Your task to perform on an android device: turn off priority inbox in the gmail app Image 0: 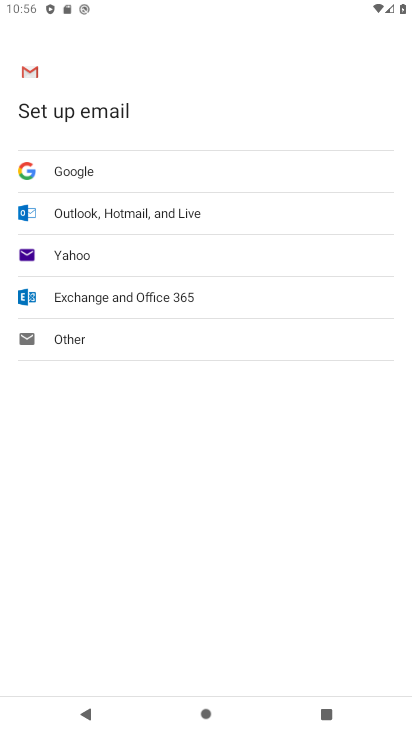
Step 0: press home button
Your task to perform on an android device: turn off priority inbox in the gmail app Image 1: 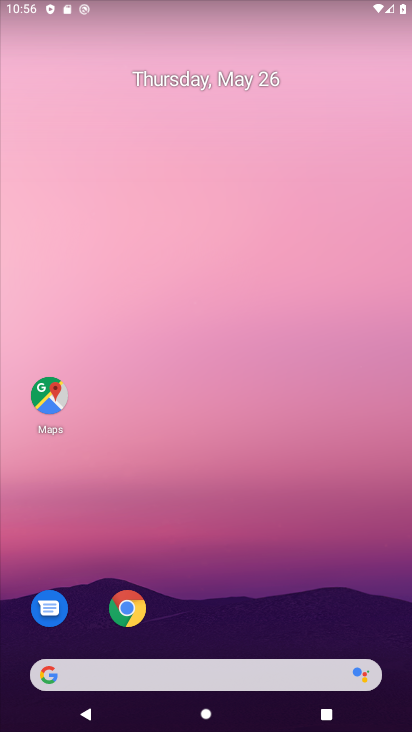
Step 1: drag from (249, 581) to (282, 138)
Your task to perform on an android device: turn off priority inbox in the gmail app Image 2: 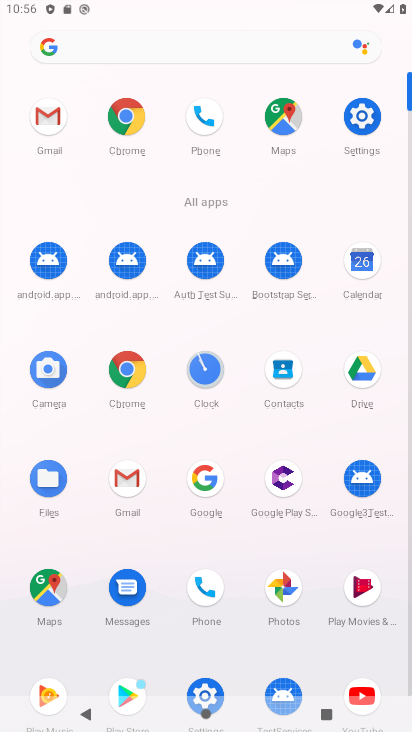
Step 2: click (60, 115)
Your task to perform on an android device: turn off priority inbox in the gmail app Image 3: 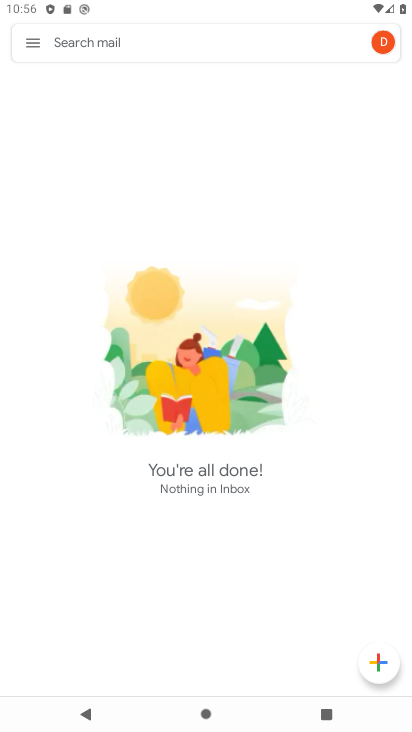
Step 3: click (37, 39)
Your task to perform on an android device: turn off priority inbox in the gmail app Image 4: 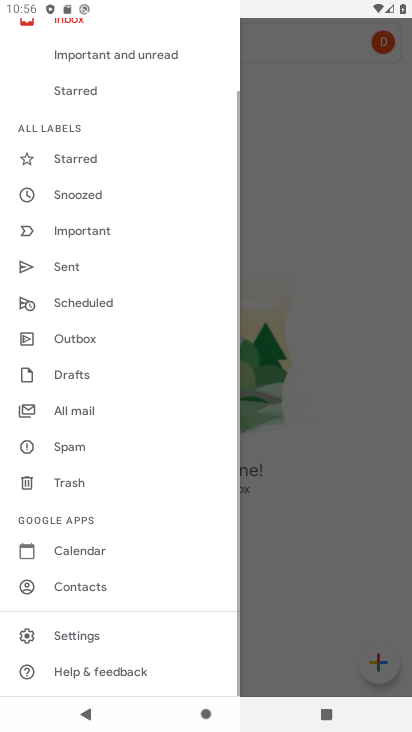
Step 4: drag from (131, 652) to (191, 250)
Your task to perform on an android device: turn off priority inbox in the gmail app Image 5: 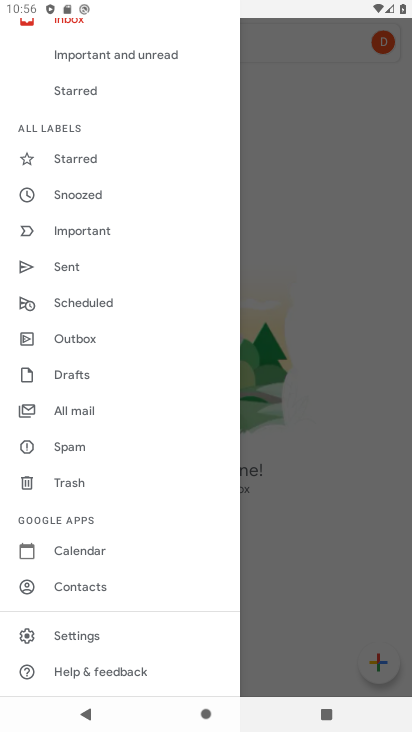
Step 5: click (78, 644)
Your task to perform on an android device: turn off priority inbox in the gmail app Image 6: 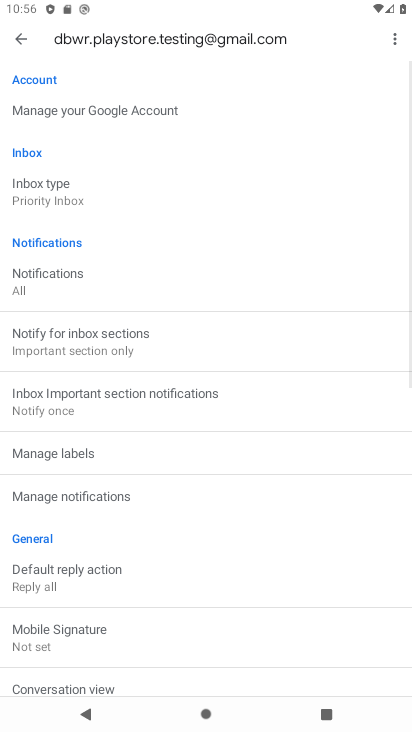
Step 6: drag from (153, 223) to (179, 647)
Your task to perform on an android device: turn off priority inbox in the gmail app Image 7: 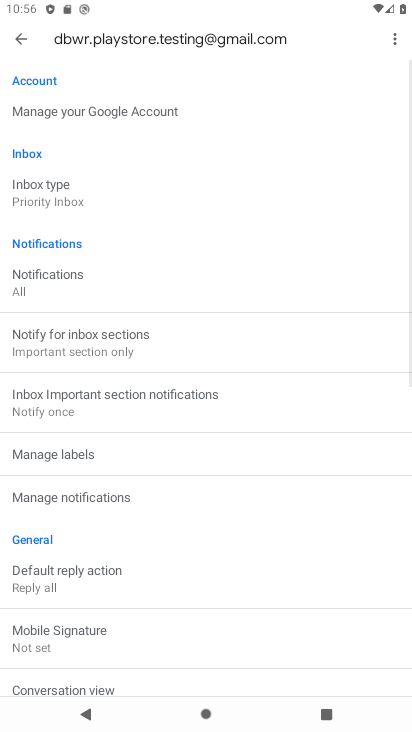
Step 7: click (56, 201)
Your task to perform on an android device: turn off priority inbox in the gmail app Image 8: 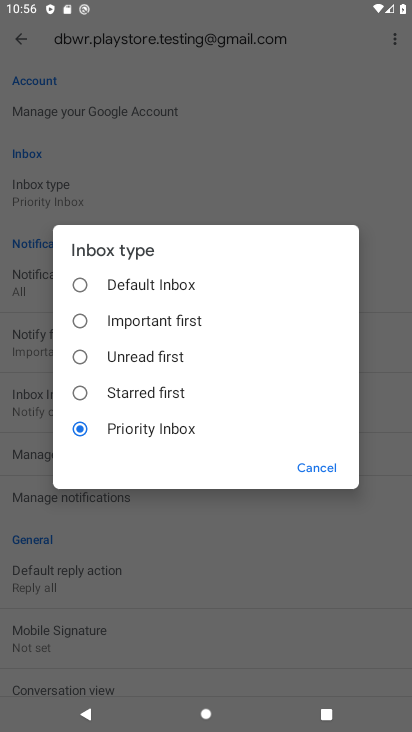
Step 8: task complete